Your task to perform on an android device: Search for "macbook" on target.com, select the first entry, and add it to the cart. Image 0: 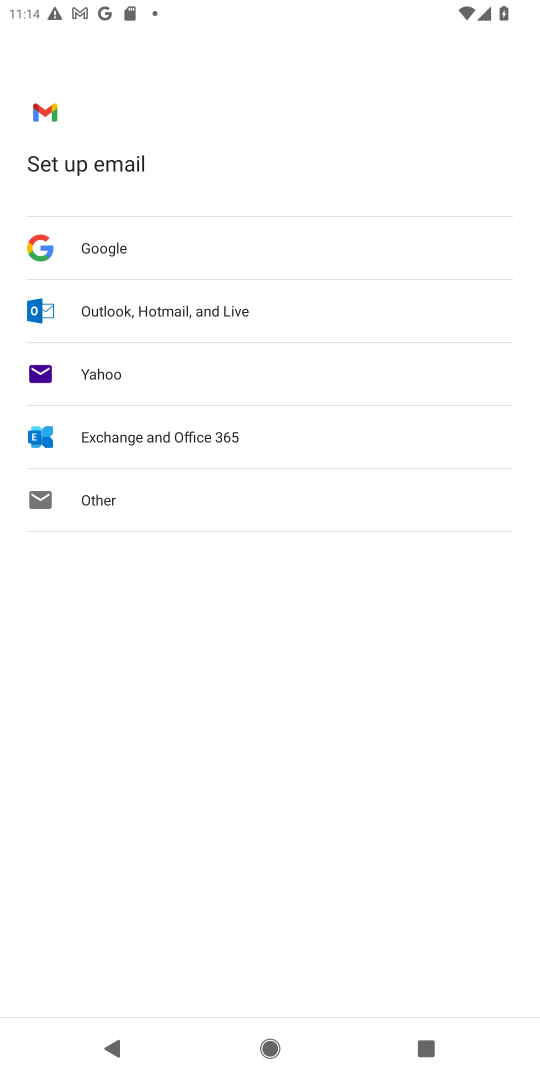
Step 0: press home button
Your task to perform on an android device: Search for "macbook" on target.com, select the first entry, and add it to the cart. Image 1: 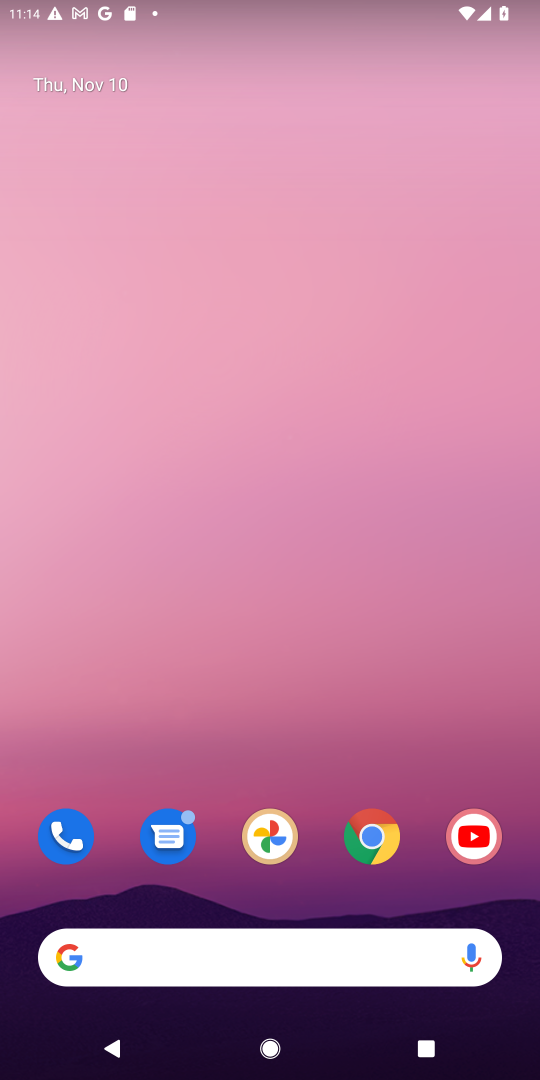
Step 1: click (251, 941)
Your task to perform on an android device: Search for "macbook" on target.com, select the first entry, and add it to the cart. Image 2: 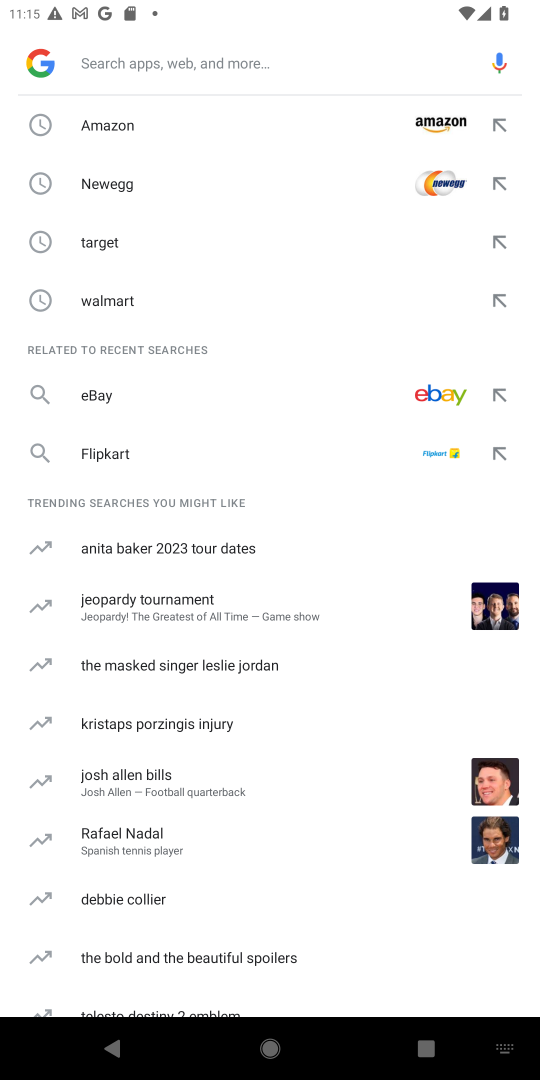
Step 2: click (127, 235)
Your task to perform on an android device: Search for "macbook" on target.com, select the first entry, and add it to the cart. Image 3: 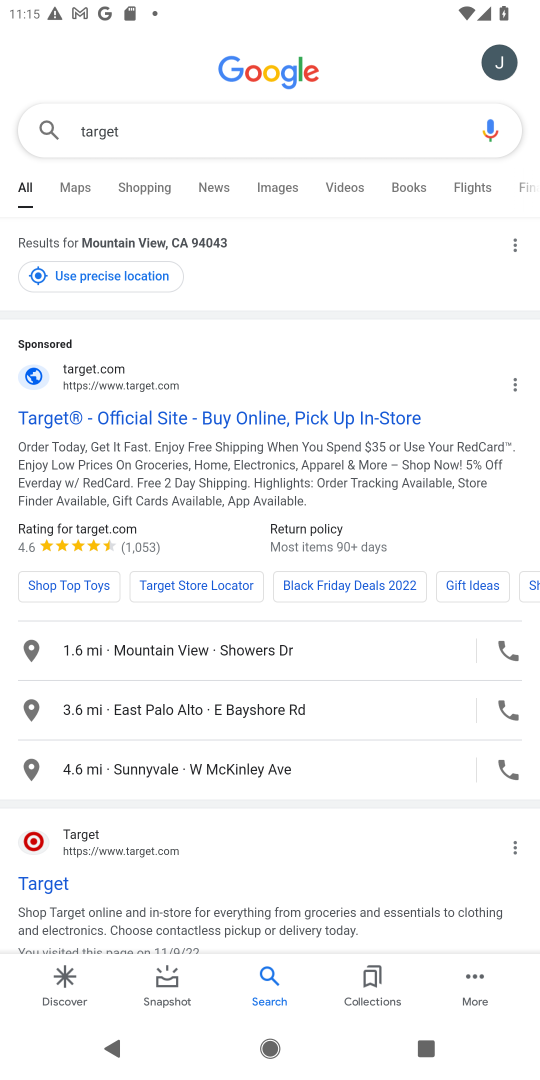
Step 3: click (112, 366)
Your task to perform on an android device: Search for "macbook" on target.com, select the first entry, and add it to the cart. Image 4: 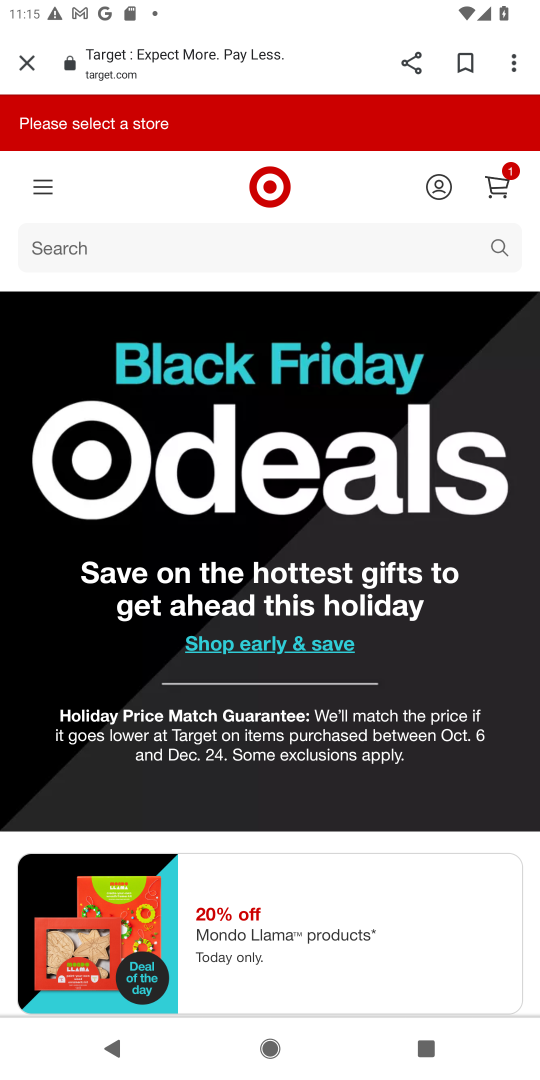
Step 4: click (210, 238)
Your task to perform on an android device: Search for "macbook" on target.com, select the first entry, and add it to the cart. Image 5: 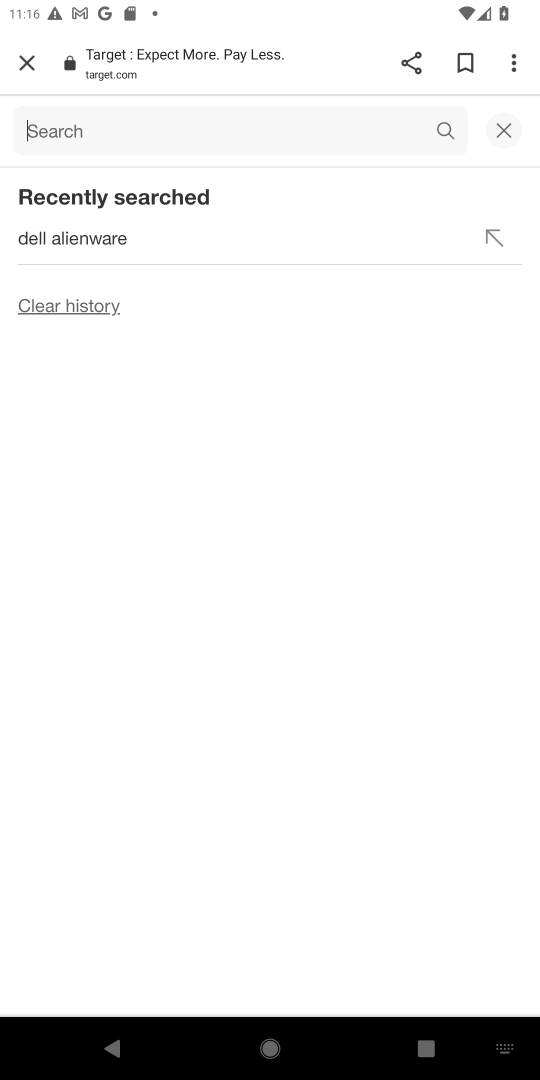
Step 5: type "macbook"
Your task to perform on an android device: Search for "macbook" on target.com, select the first entry, and add it to the cart. Image 6: 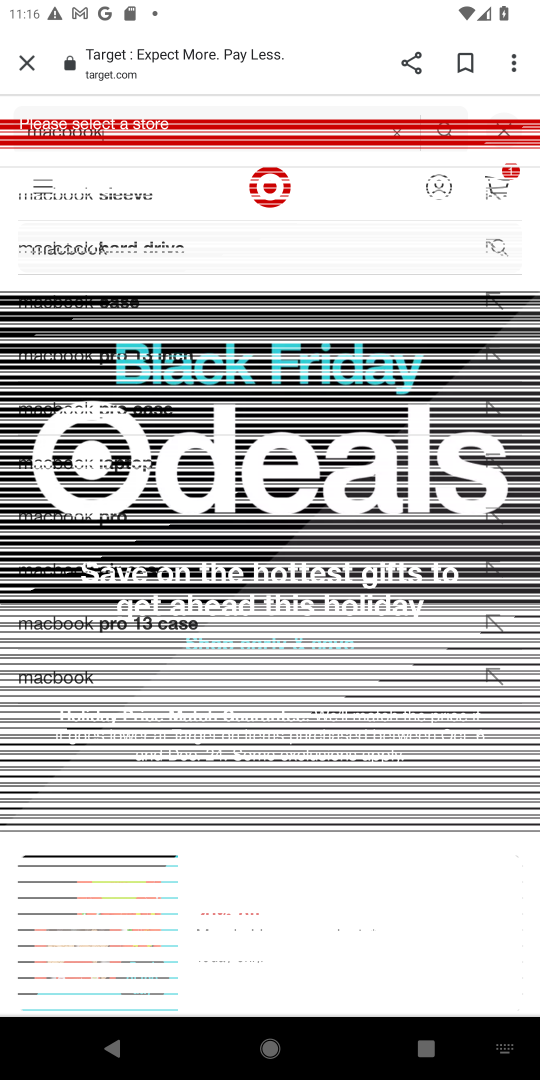
Step 6: click (66, 676)
Your task to perform on an android device: Search for "macbook" on target.com, select the first entry, and add it to the cart. Image 7: 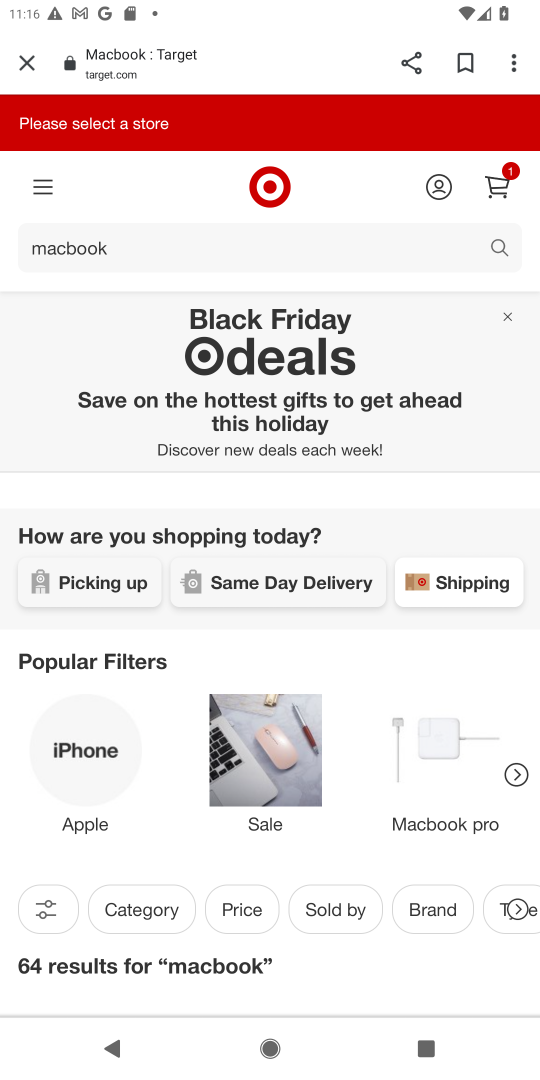
Step 7: drag from (456, 828) to (403, 621)
Your task to perform on an android device: Search for "macbook" on target.com, select the first entry, and add it to the cart. Image 8: 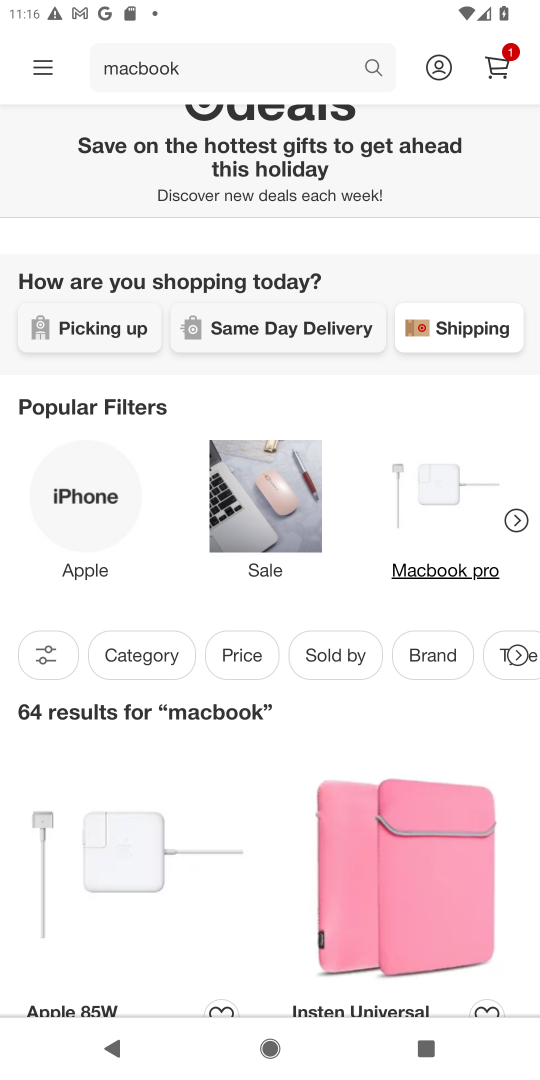
Step 8: drag from (337, 805) to (337, 679)
Your task to perform on an android device: Search for "macbook" on target.com, select the first entry, and add it to the cart. Image 9: 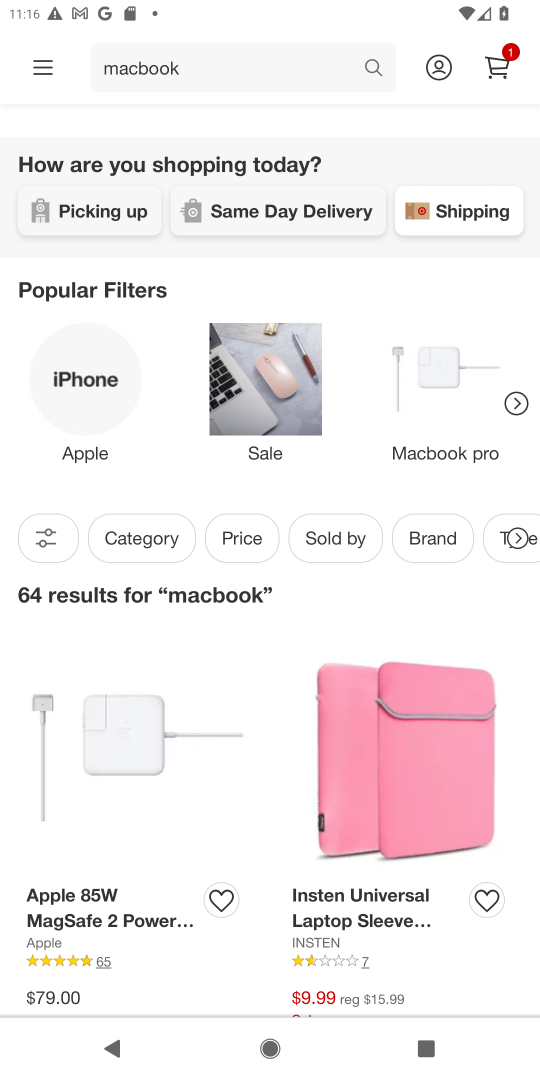
Step 9: click (75, 788)
Your task to perform on an android device: Search for "macbook" on target.com, select the first entry, and add it to the cart. Image 10: 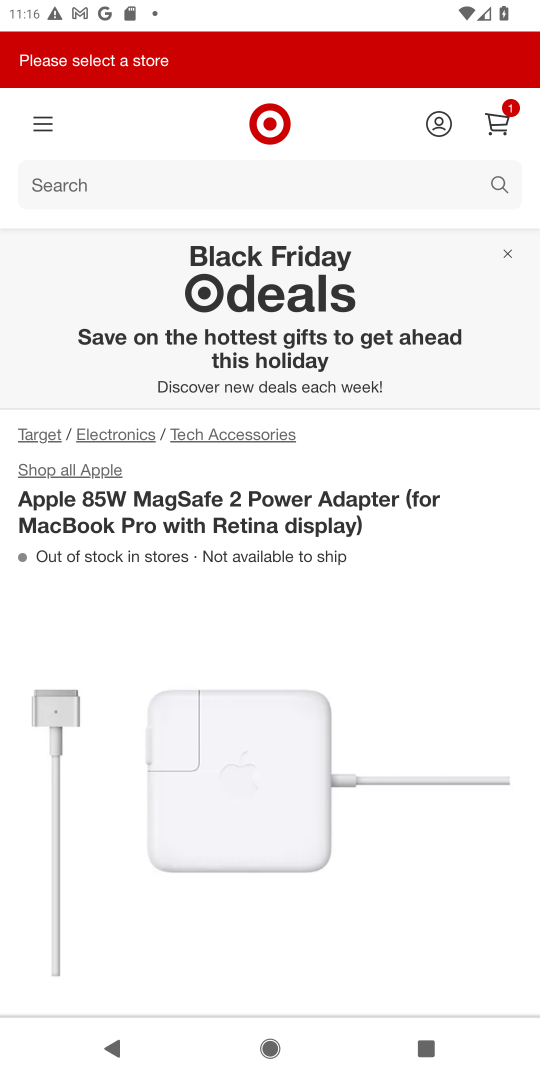
Step 10: drag from (238, 786) to (265, 158)
Your task to perform on an android device: Search for "macbook" on target.com, select the first entry, and add it to the cart. Image 11: 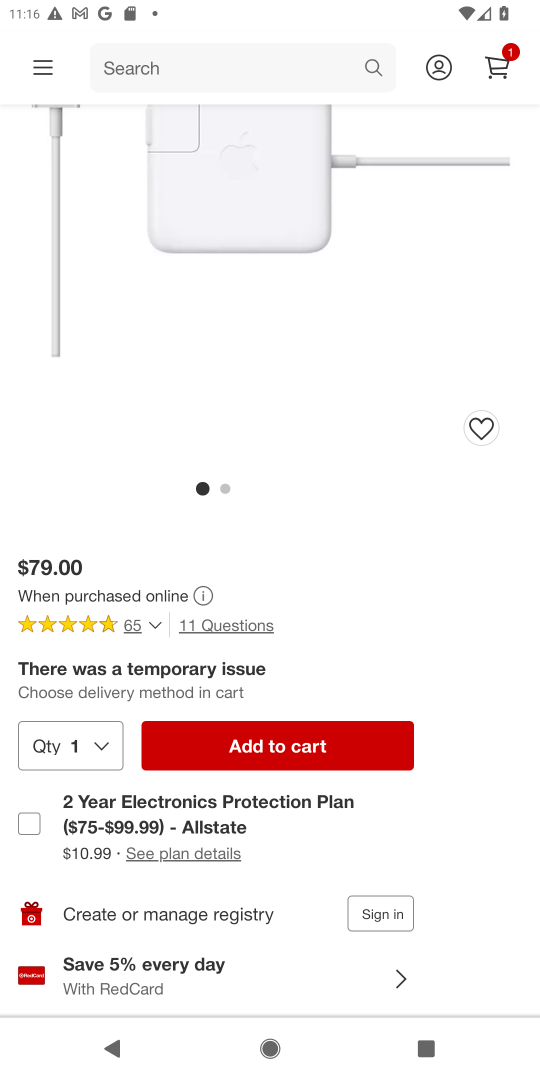
Step 11: click (245, 756)
Your task to perform on an android device: Search for "macbook" on target.com, select the first entry, and add it to the cart. Image 12: 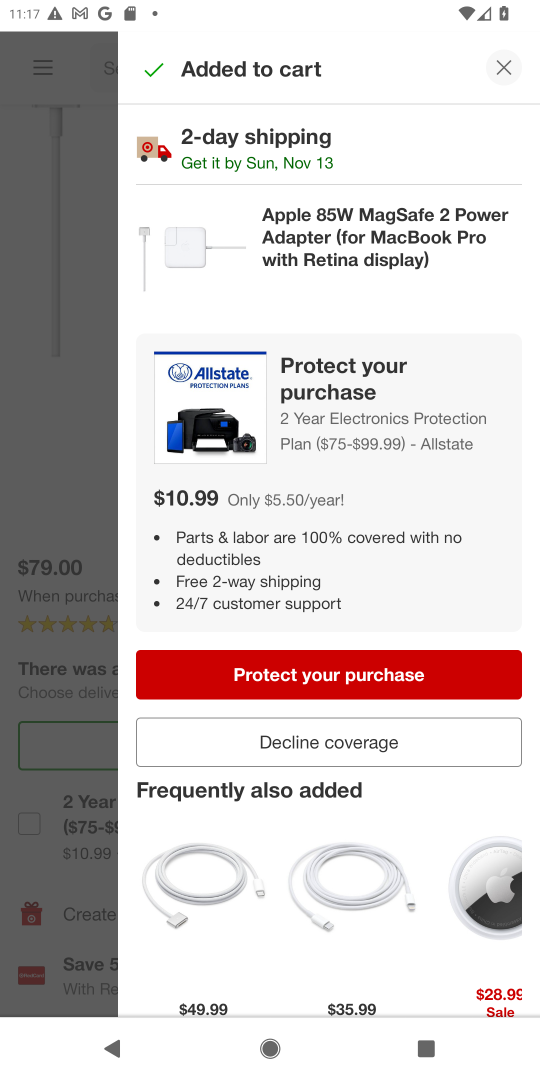
Step 12: task complete